Your task to perform on an android device: turn off translation in the chrome app Image 0: 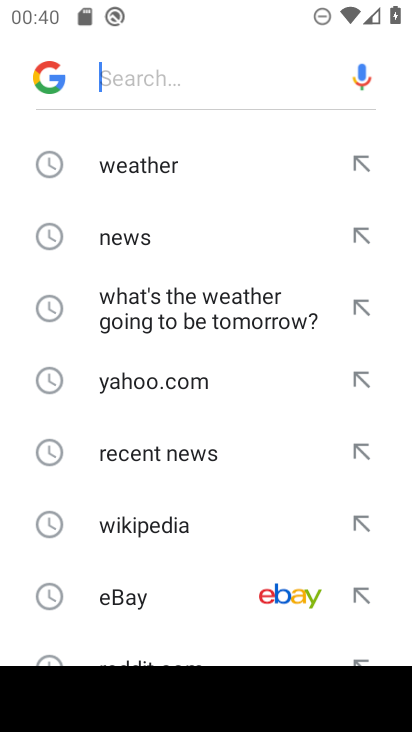
Step 0: press home button
Your task to perform on an android device: turn off translation in the chrome app Image 1: 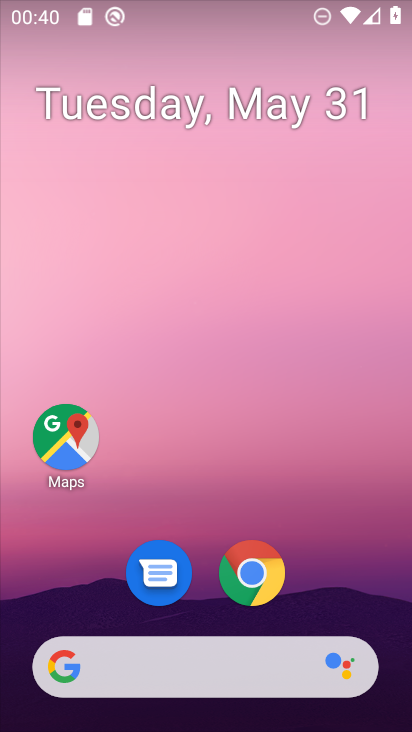
Step 1: click (269, 569)
Your task to perform on an android device: turn off translation in the chrome app Image 2: 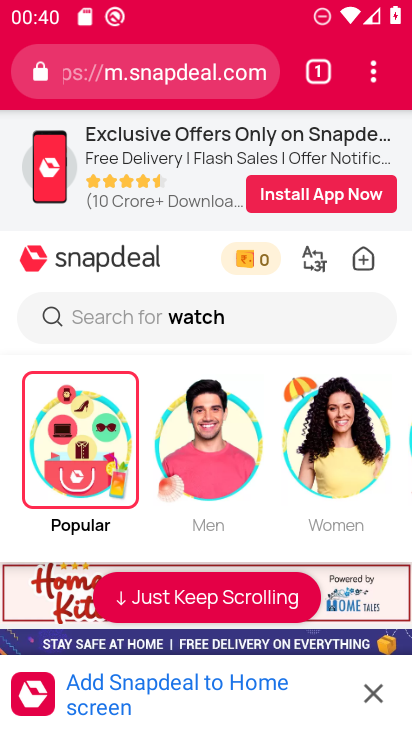
Step 2: click (371, 69)
Your task to perform on an android device: turn off translation in the chrome app Image 3: 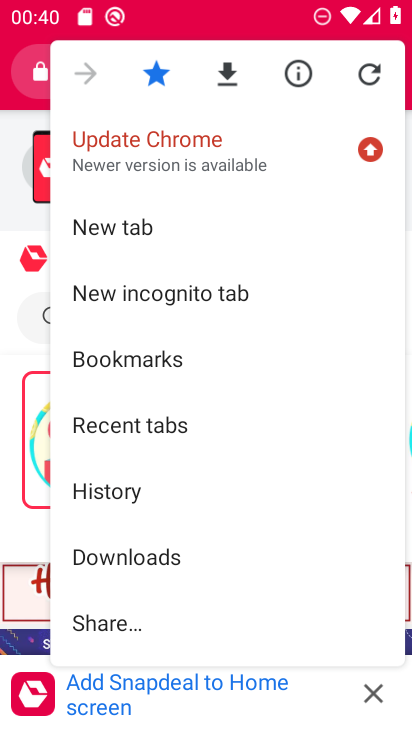
Step 3: drag from (355, 596) to (163, 37)
Your task to perform on an android device: turn off translation in the chrome app Image 4: 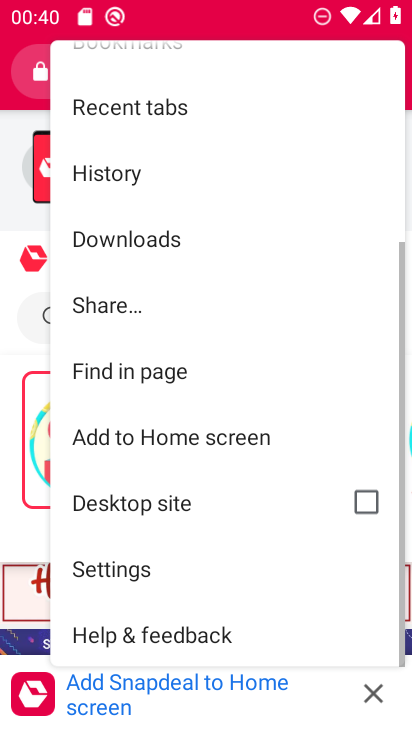
Step 4: click (143, 574)
Your task to perform on an android device: turn off translation in the chrome app Image 5: 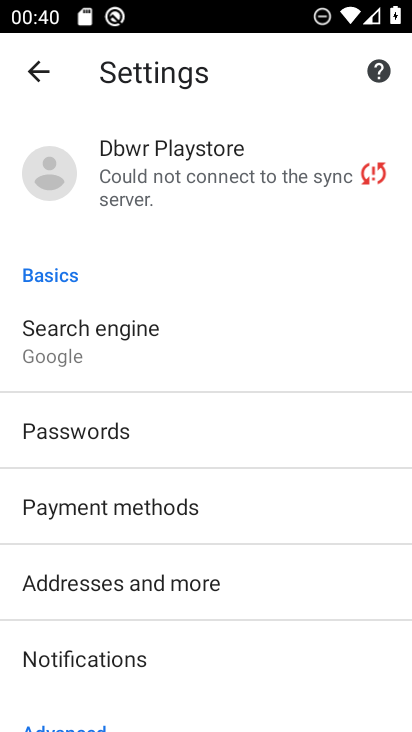
Step 5: drag from (163, 642) to (217, 0)
Your task to perform on an android device: turn off translation in the chrome app Image 6: 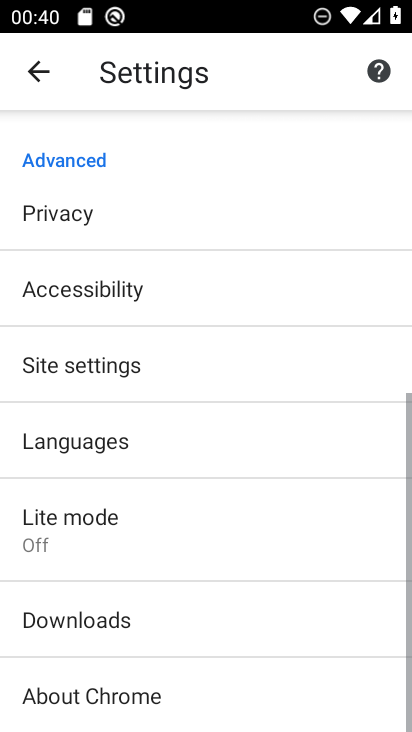
Step 6: drag from (213, 724) to (202, 158)
Your task to perform on an android device: turn off translation in the chrome app Image 7: 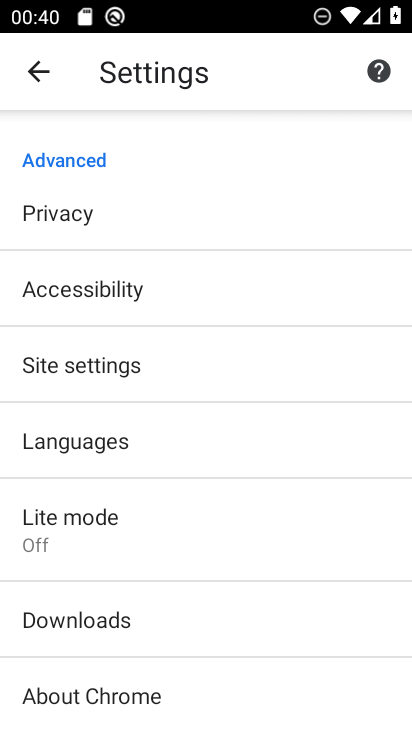
Step 7: click (99, 442)
Your task to perform on an android device: turn off translation in the chrome app Image 8: 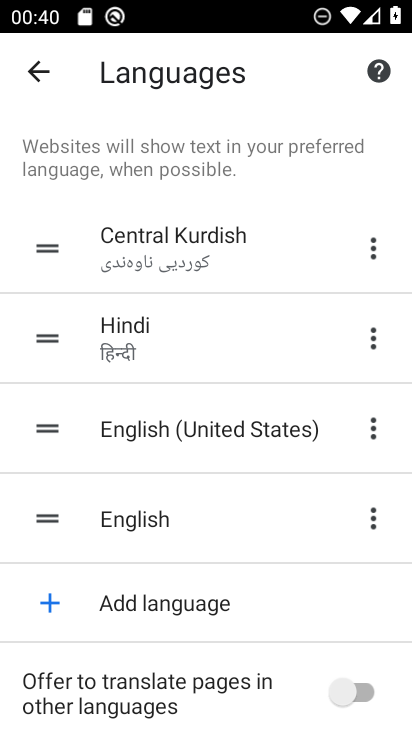
Step 8: task complete